Your task to perform on an android device: read, delete, or share a saved page in the chrome app Image 0: 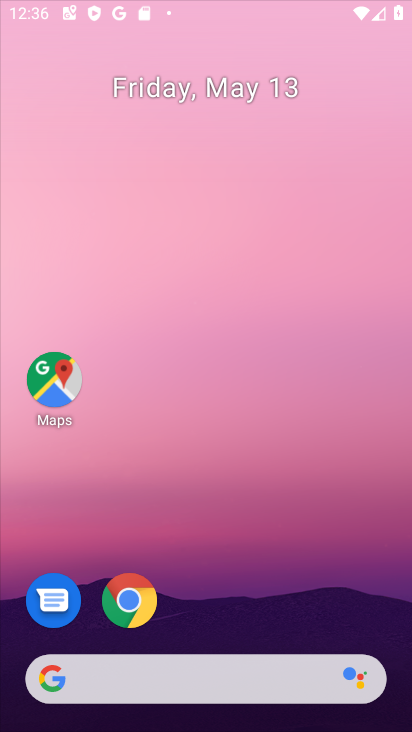
Step 0: drag from (243, 642) to (246, 47)
Your task to perform on an android device: read, delete, or share a saved page in the chrome app Image 1: 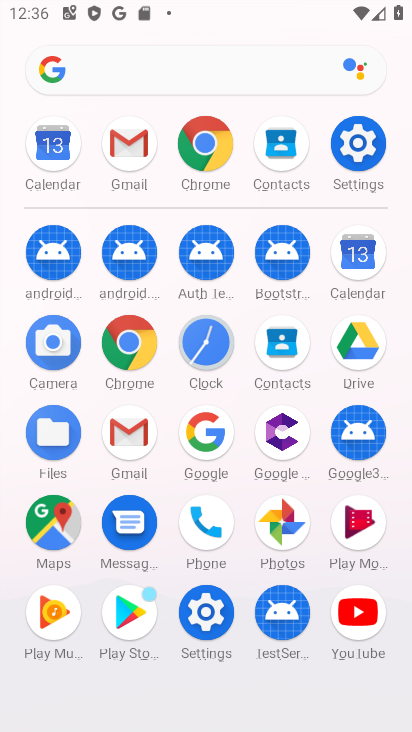
Step 1: click (132, 339)
Your task to perform on an android device: read, delete, or share a saved page in the chrome app Image 2: 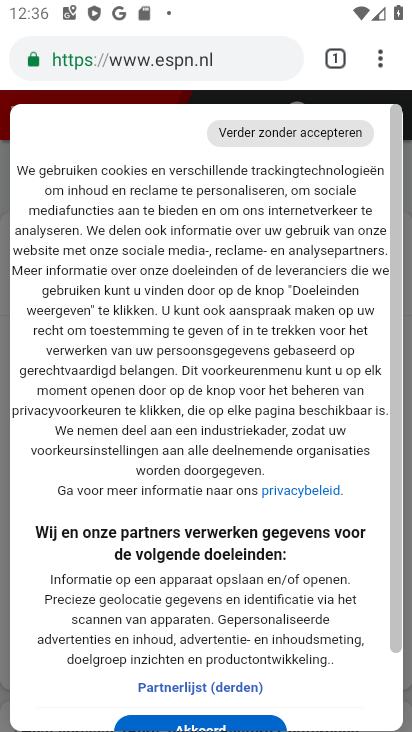
Step 2: task complete